Your task to perform on an android device: Go to privacy settings Image 0: 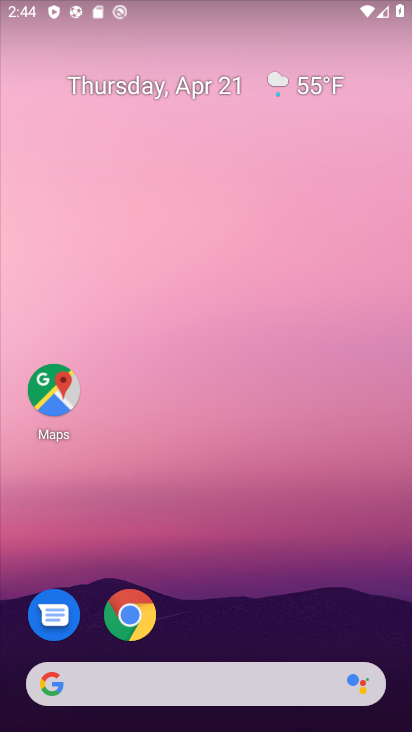
Step 0: drag from (188, 682) to (303, 49)
Your task to perform on an android device: Go to privacy settings Image 1: 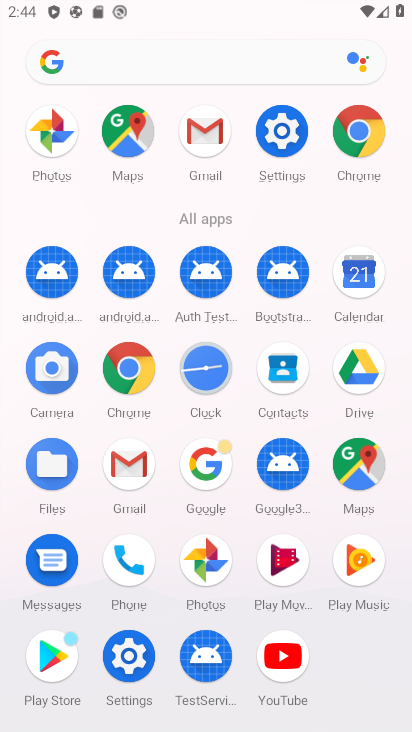
Step 1: click (286, 141)
Your task to perform on an android device: Go to privacy settings Image 2: 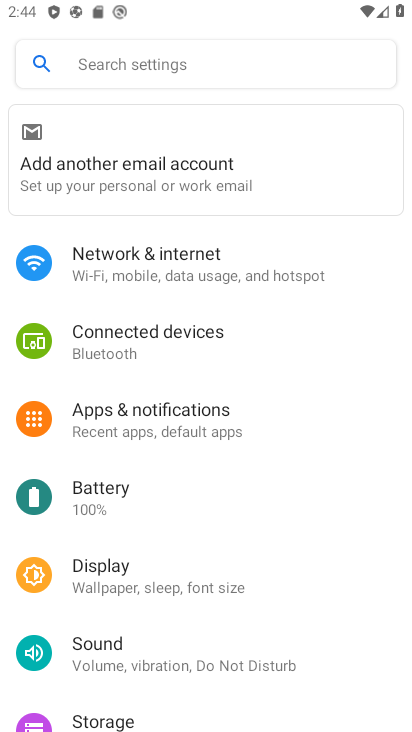
Step 2: drag from (172, 567) to (269, 167)
Your task to perform on an android device: Go to privacy settings Image 3: 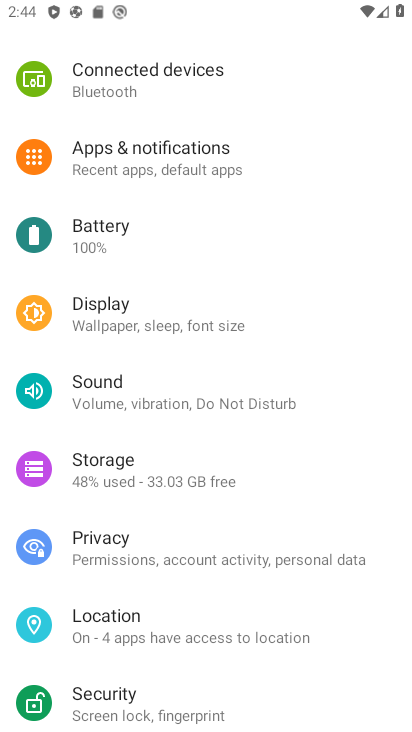
Step 3: click (117, 548)
Your task to perform on an android device: Go to privacy settings Image 4: 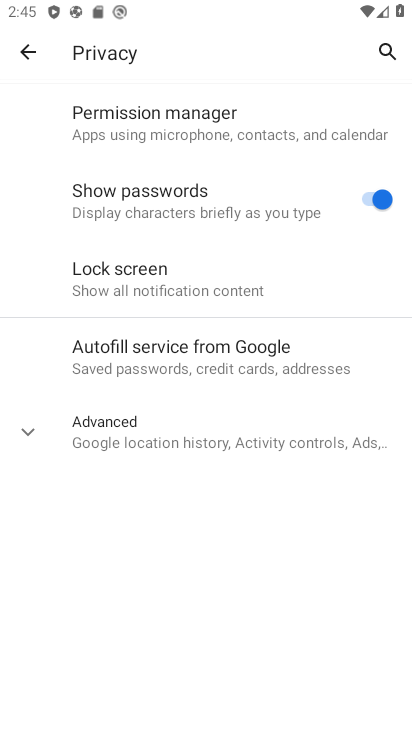
Step 4: task complete